Your task to perform on an android device: Open my contact list Image 0: 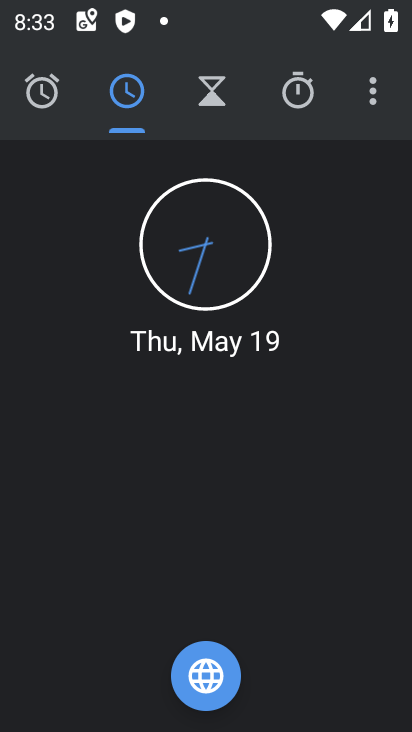
Step 0: press home button
Your task to perform on an android device: Open my contact list Image 1: 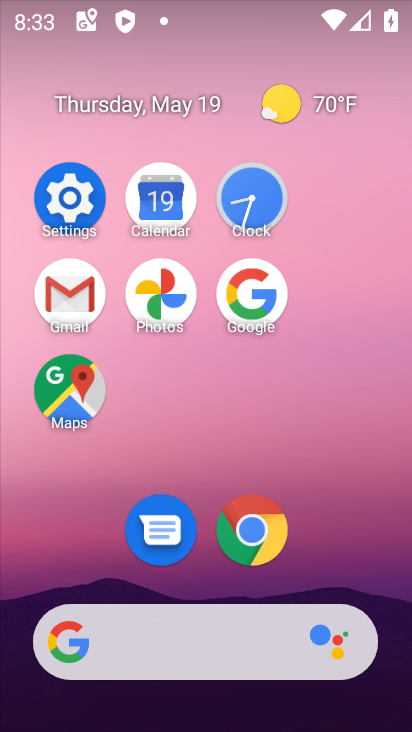
Step 1: drag from (345, 560) to (321, 87)
Your task to perform on an android device: Open my contact list Image 2: 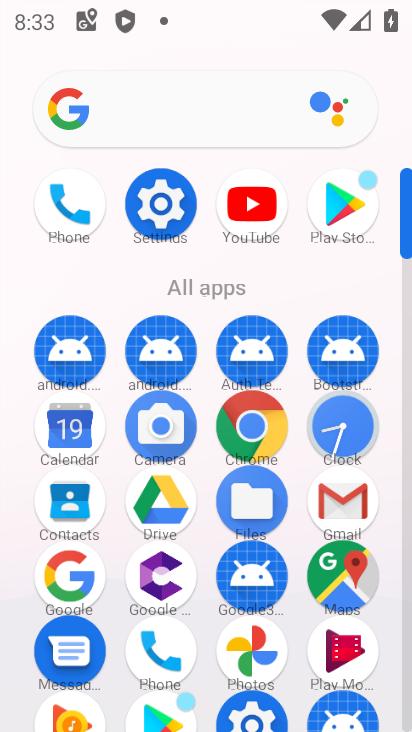
Step 2: drag from (65, 503) to (237, 357)
Your task to perform on an android device: Open my contact list Image 3: 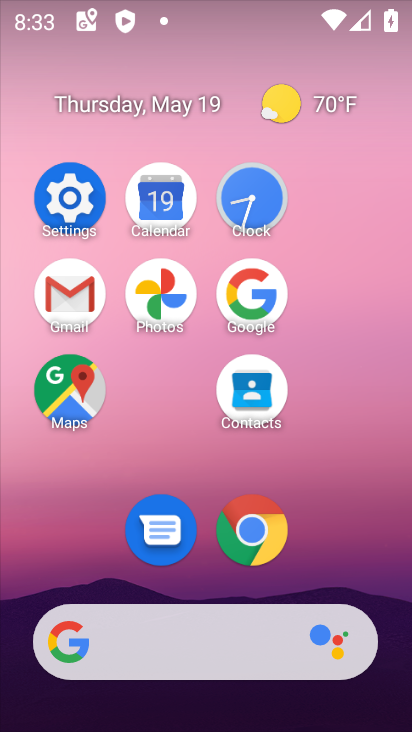
Step 3: click (254, 410)
Your task to perform on an android device: Open my contact list Image 4: 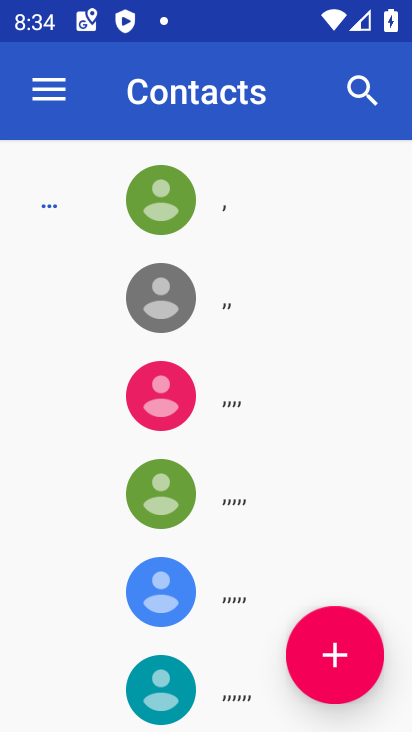
Step 4: task complete